Your task to perform on an android device: turn on data saver in the chrome app Image 0: 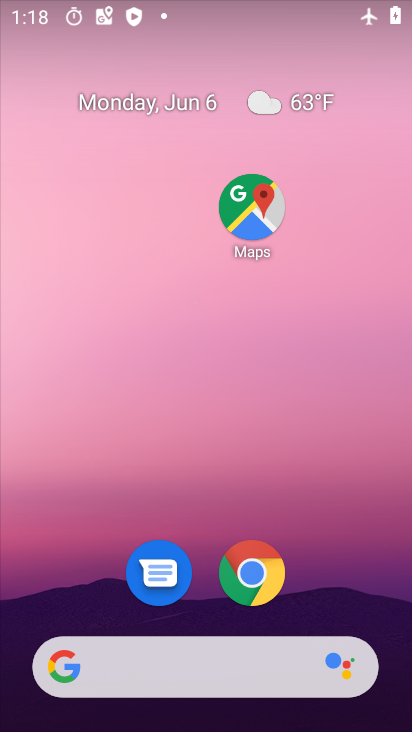
Step 0: drag from (206, 490) to (153, 60)
Your task to perform on an android device: turn on data saver in the chrome app Image 1: 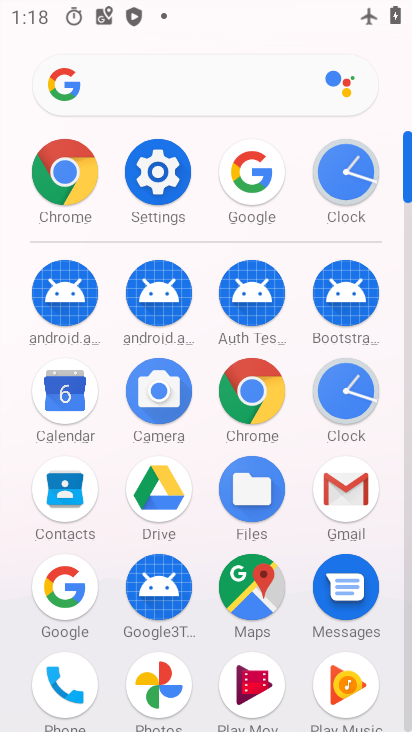
Step 1: drag from (223, 243) to (206, 4)
Your task to perform on an android device: turn on data saver in the chrome app Image 2: 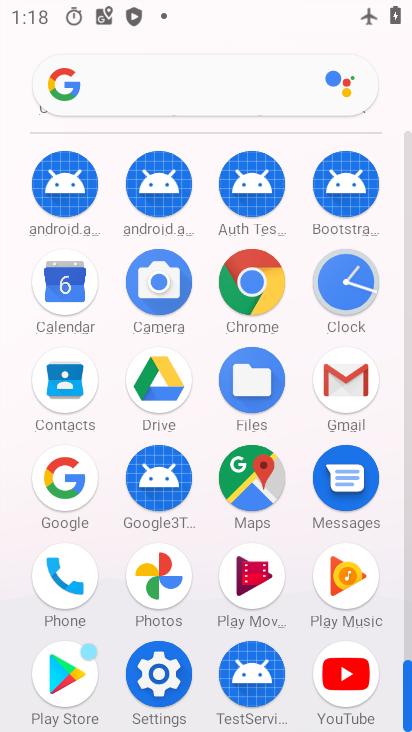
Step 2: click (261, 275)
Your task to perform on an android device: turn on data saver in the chrome app Image 3: 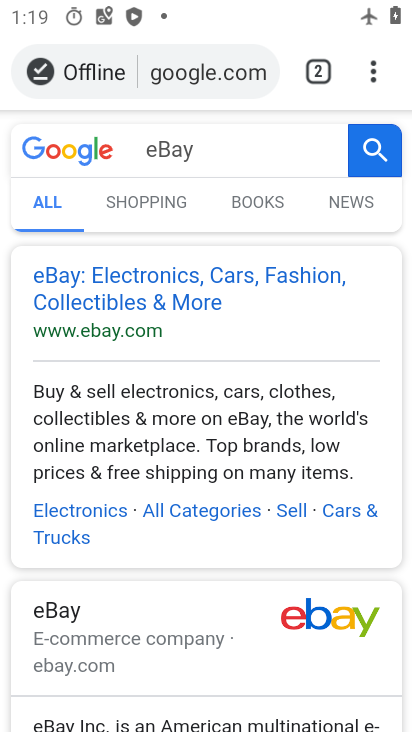
Step 3: click (373, 73)
Your task to perform on an android device: turn on data saver in the chrome app Image 4: 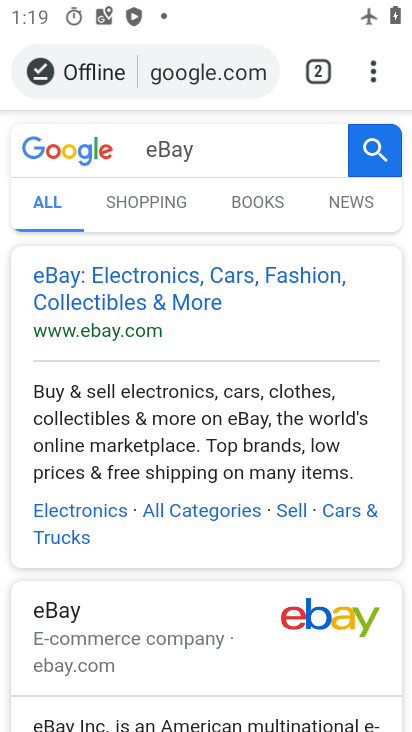
Step 4: click (378, 79)
Your task to perform on an android device: turn on data saver in the chrome app Image 5: 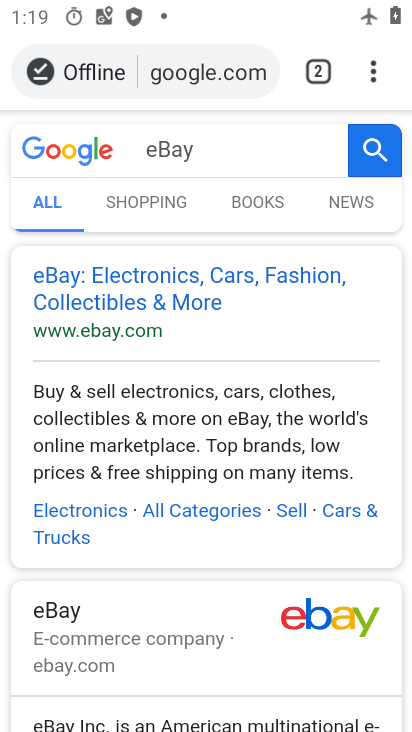
Step 5: click (369, 79)
Your task to perform on an android device: turn on data saver in the chrome app Image 6: 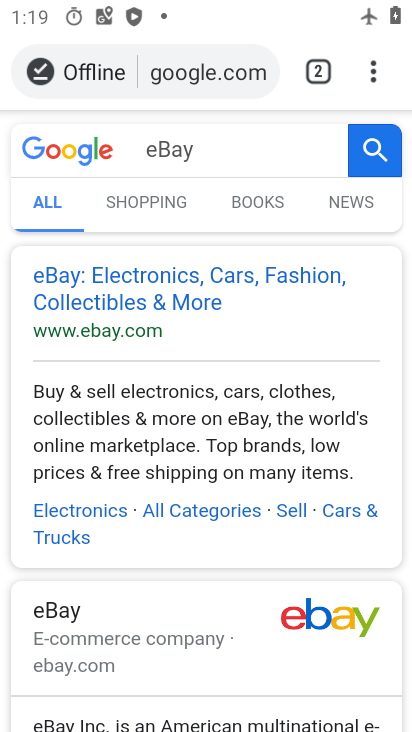
Step 6: click (377, 83)
Your task to perform on an android device: turn on data saver in the chrome app Image 7: 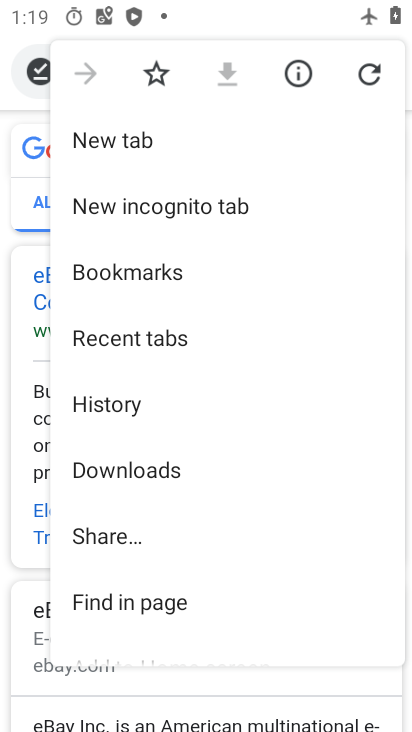
Step 7: drag from (167, 520) to (189, 105)
Your task to perform on an android device: turn on data saver in the chrome app Image 8: 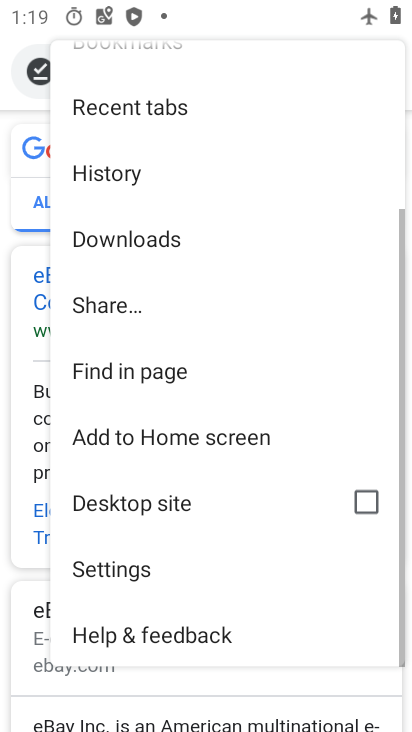
Step 8: drag from (202, 552) to (225, 227)
Your task to perform on an android device: turn on data saver in the chrome app Image 9: 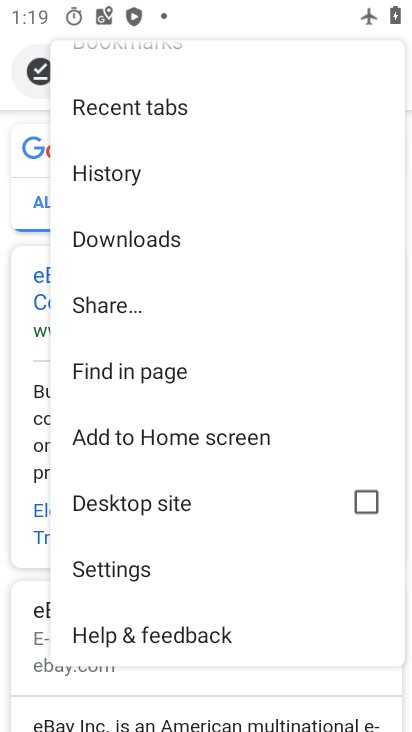
Step 9: click (167, 571)
Your task to perform on an android device: turn on data saver in the chrome app Image 10: 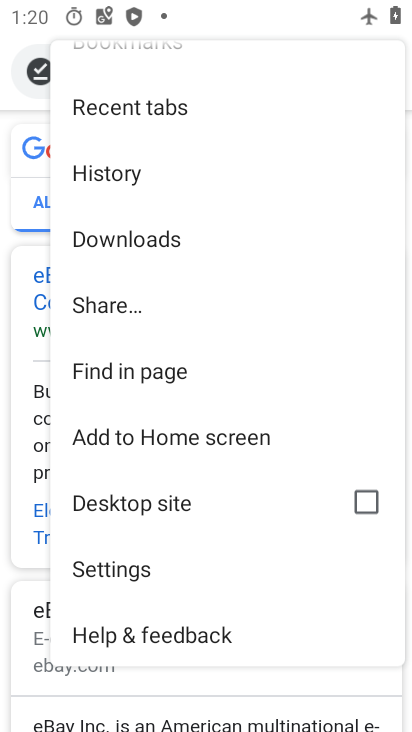
Step 10: click (180, 572)
Your task to perform on an android device: turn on data saver in the chrome app Image 11: 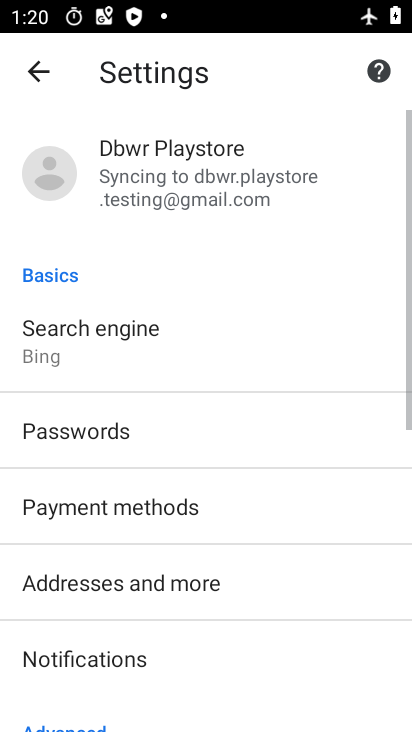
Step 11: drag from (181, 550) to (188, 116)
Your task to perform on an android device: turn on data saver in the chrome app Image 12: 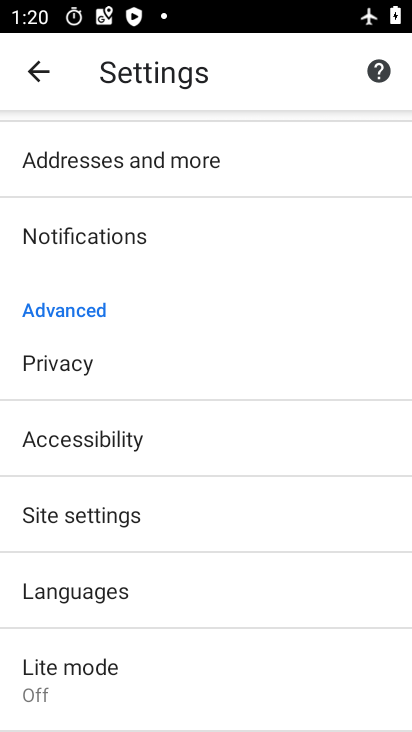
Step 12: drag from (218, 613) to (201, 272)
Your task to perform on an android device: turn on data saver in the chrome app Image 13: 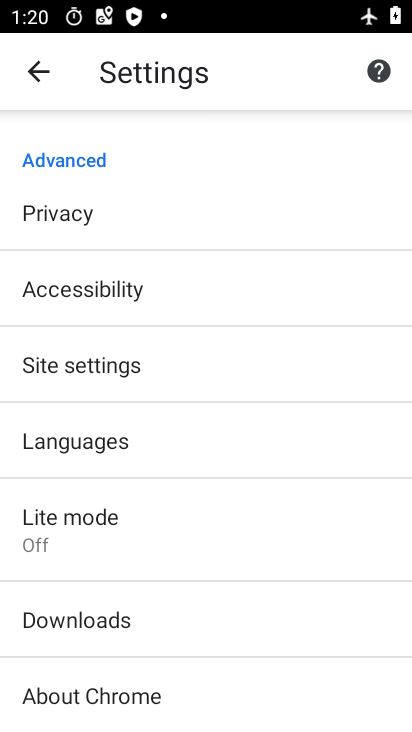
Step 13: click (126, 537)
Your task to perform on an android device: turn on data saver in the chrome app Image 14: 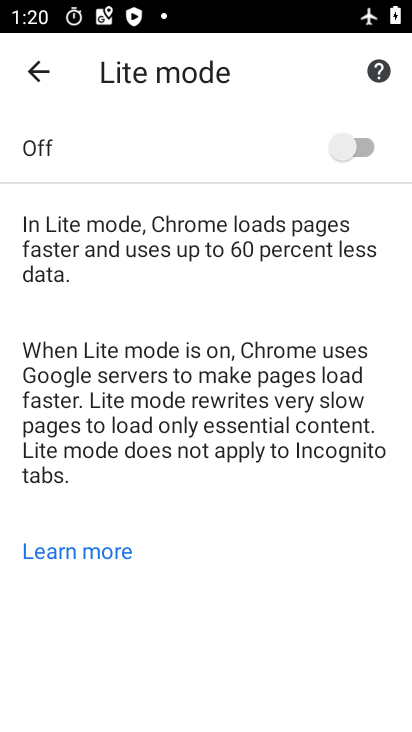
Step 14: click (334, 154)
Your task to perform on an android device: turn on data saver in the chrome app Image 15: 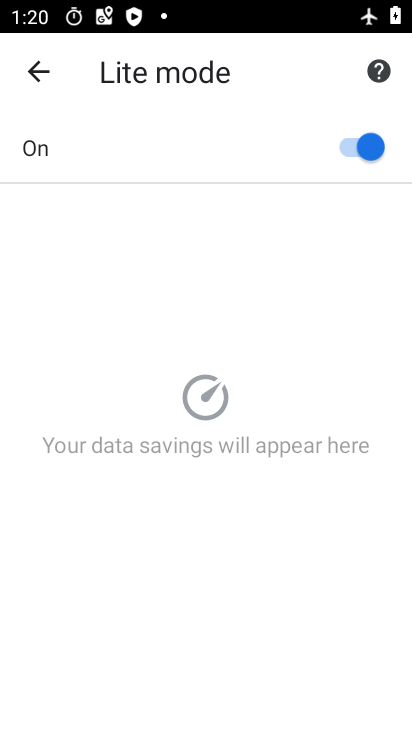
Step 15: task complete